Your task to perform on an android device: Show me popular videos on Youtube Image 0: 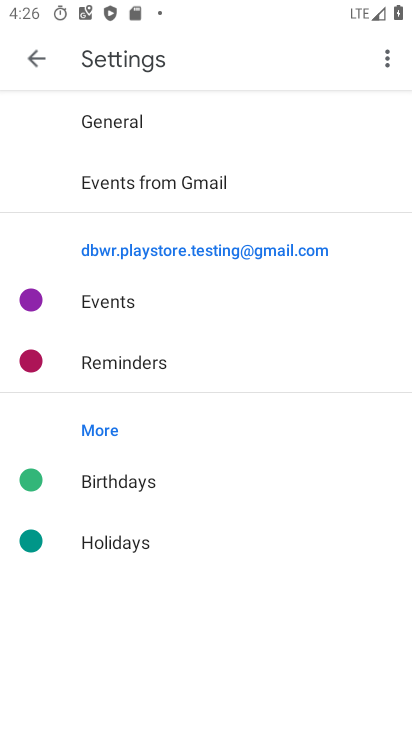
Step 0: press home button
Your task to perform on an android device: Show me popular videos on Youtube Image 1: 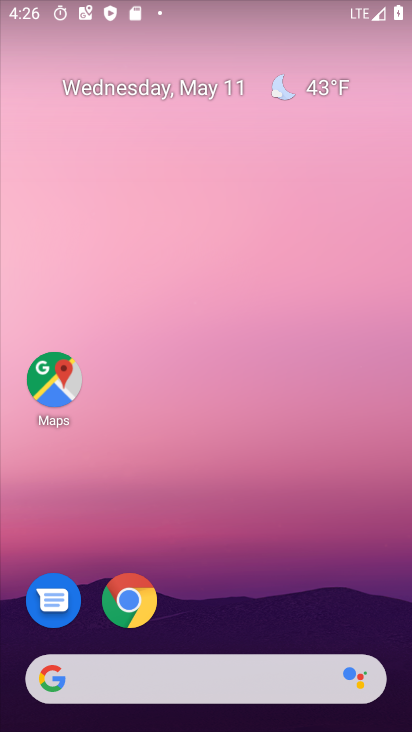
Step 1: drag from (315, 623) to (301, 60)
Your task to perform on an android device: Show me popular videos on Youtube Image 2: 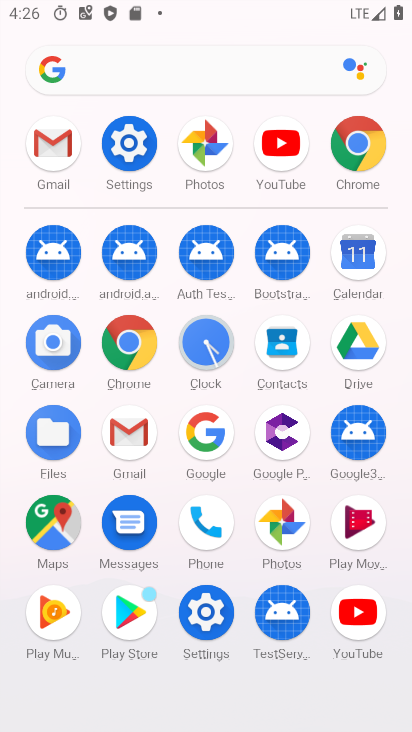
Step 2: click (351, 615)
Your task to perform on an android device: Show me popular videos on Youtube Image 3: 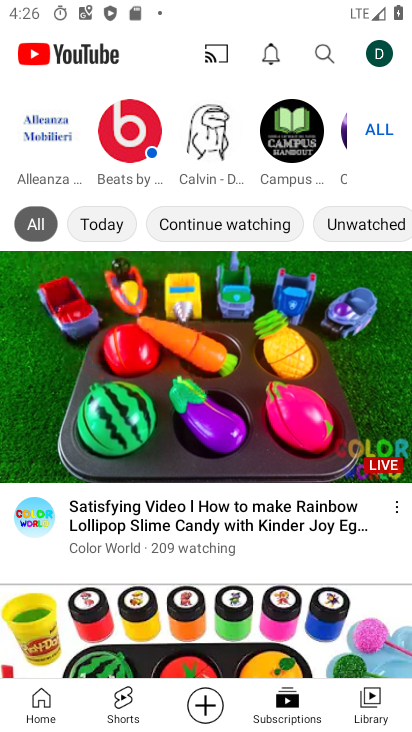
Step 3: click (43, 714)
Your task to perform on an android device: Show me popular videos on Youtube Image 4: 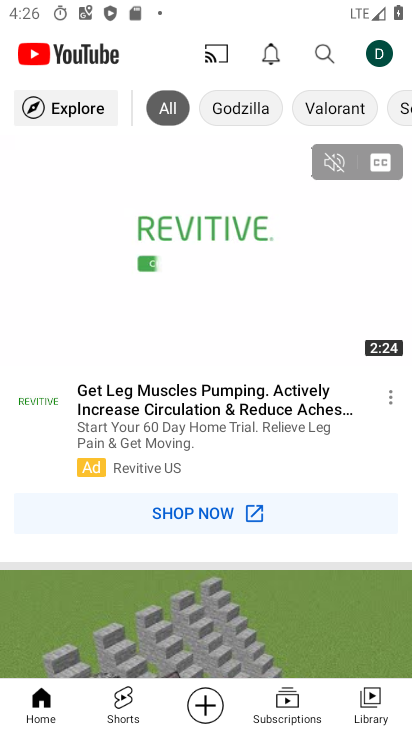
Step 4: task complete